Your task to perform on an android device: turn on improve location accuracy Image 0: 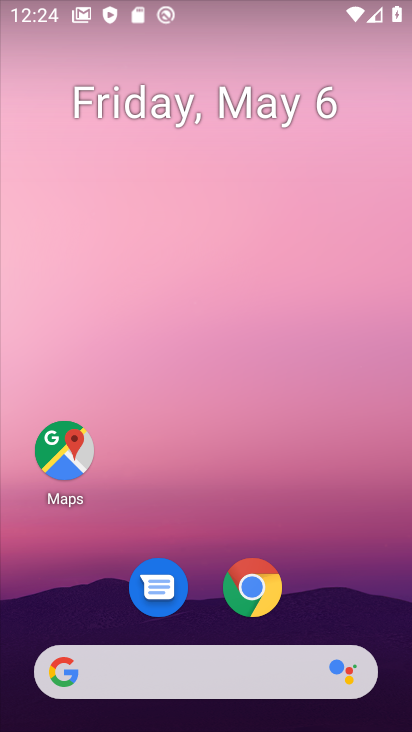
Step 0: click (287, 131)
Your task to perform on an android device: turn on improve location accuracy Image 1: 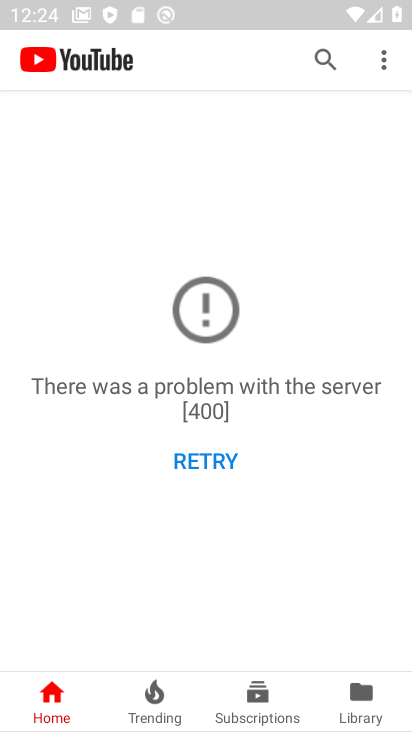
Step 1: press home button
Your task to perform on an android device: turn on improve location accuracy Image 2: 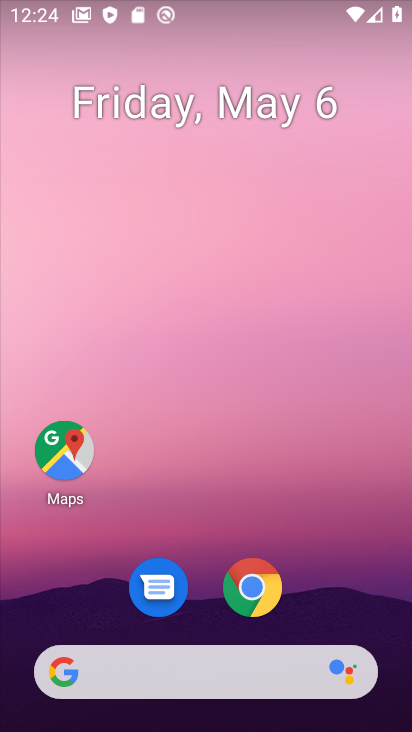
Step 2: drag from (100, 646) to (223, 160)
Your task to perform on an android device: turn on improve location accuracy Image 3: 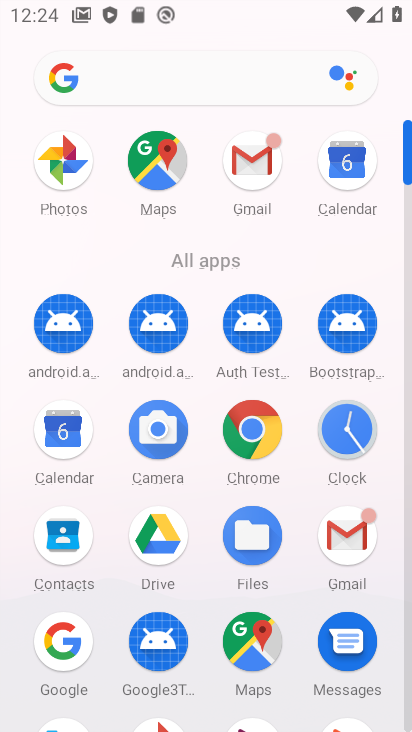
Step 3: drag from (119, 643) to (184, 359)
Your task to perform on an android device: turn on improve location accuracy Image 4: 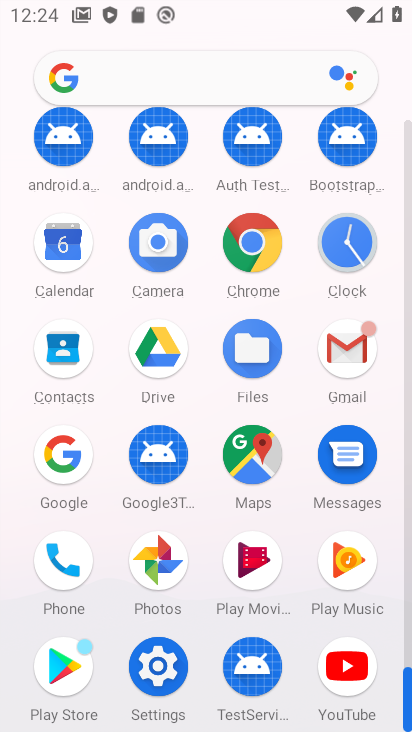
Step 4: click (159, 672)
Your task to perform on an android device: turn on improve location accuracy Image 5: 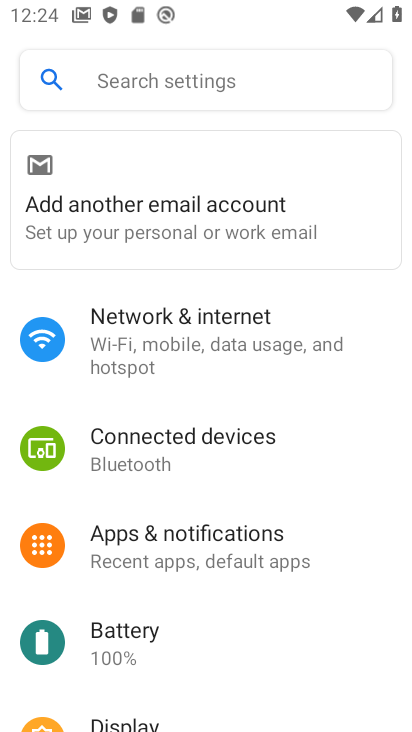
Step 5: drag from (201, 665) to (320, 302)
Your task to perform on an android device: turn on improve location accuracy Image 6: 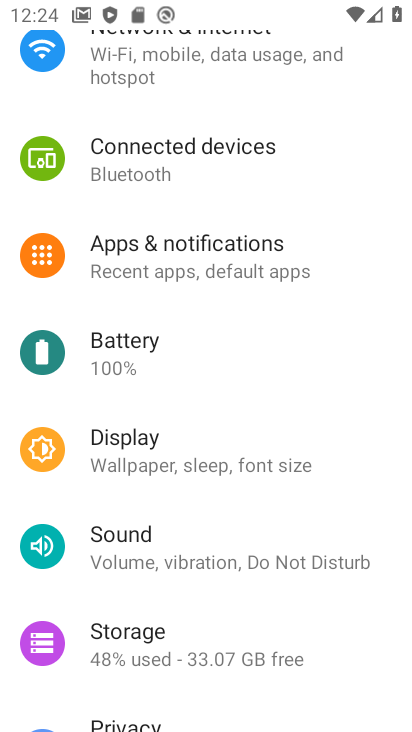
Step 6: drag from (195, 686) to (292, 230)
Your task to perform on an android device: turn on improve location accuracy Image 7: 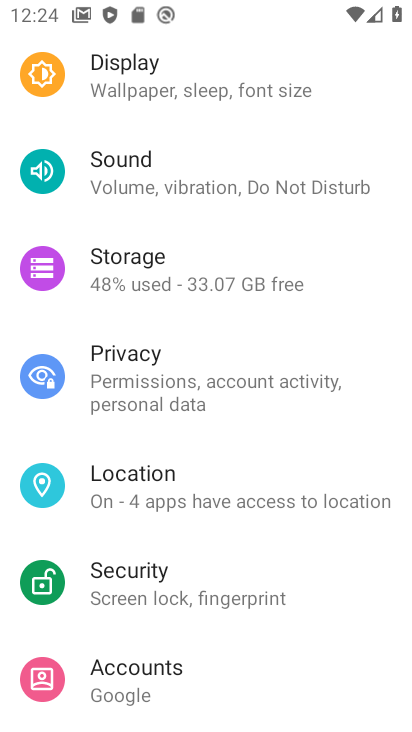
Step 7: click (201, 489)
Your task to perform on an android device: turn on improve location accuracy Image 8: 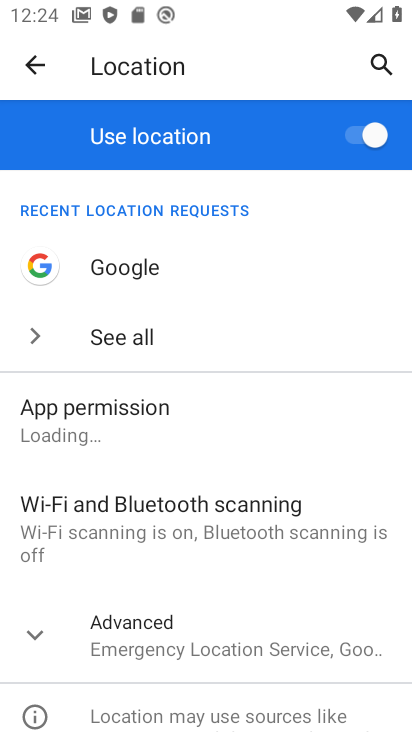
Step 8: drag from (216, 659) to (274, 328)
Your task to perform on an android device: turn on improve location accuracy Image 9: 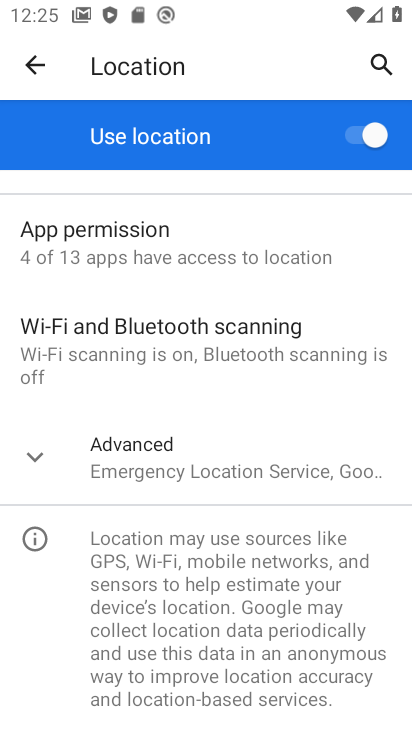
Step 9: drag from (195, 654) to (222, 535)
Your task to perform on an android device: turn on improve location accuracy Image 10: 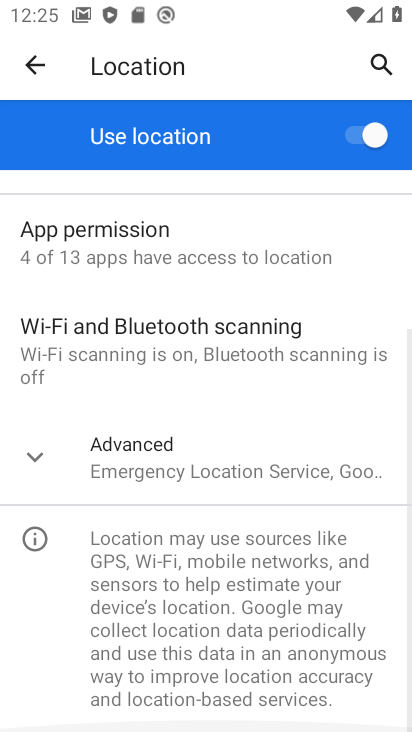
Step 10: click (212, 465)
Your task to perform on an android device: turn on improve location accuracy Image 11: 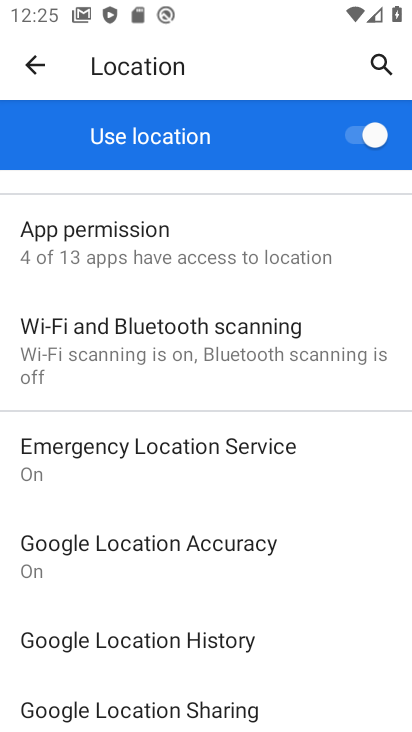
Step 11: drag from (224, 647) to (268, 458)
Your task to perform on an android device: turn on improve location accuracy Image 12: 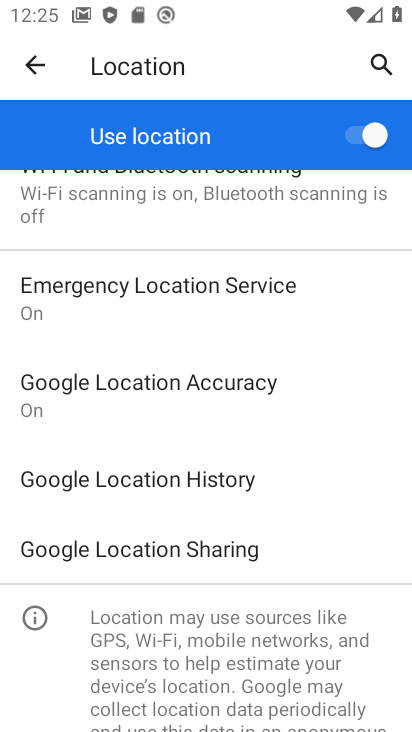
Step 12: click (233, 394)
Your task to perform on an android device: turn on improve location accuracy Image 13: 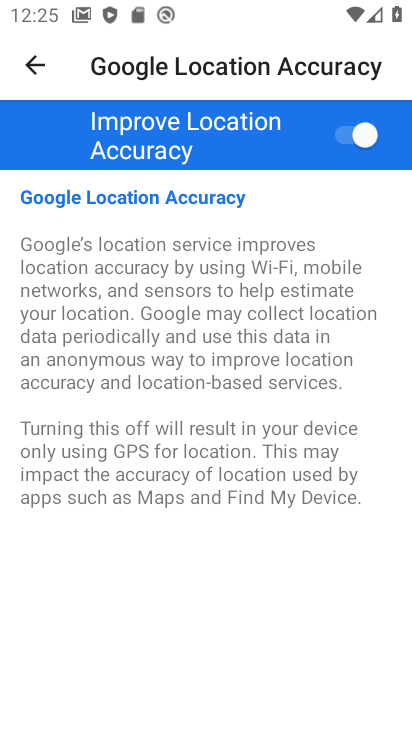
Step 13: task complete